Your task to perform on an android device: see creations saved in the google photos Image 0: 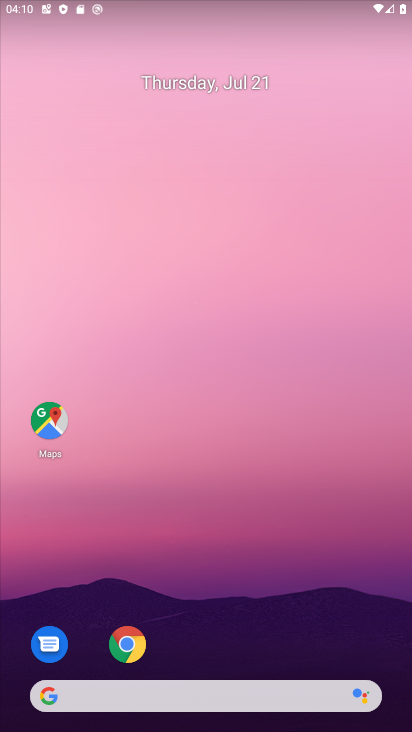
Step 0: drag from (308, 661) to (304, 38)
Your task to perform on an android device: see creations saved in the google photos Image 1: 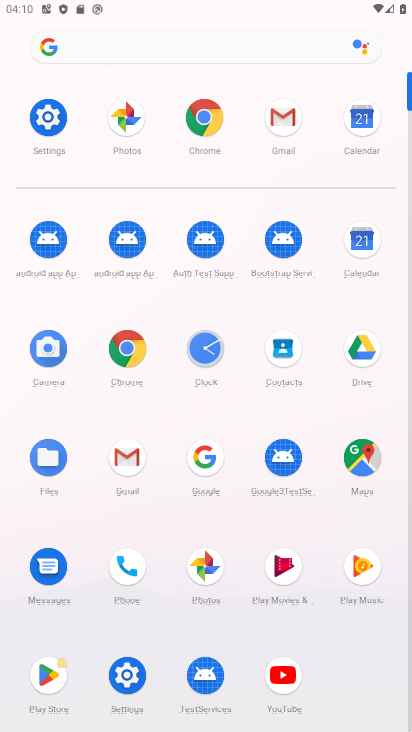
Step 1: click (198, 568)
Your task to perform on an android device: see creations saved in the google photos Image 2: 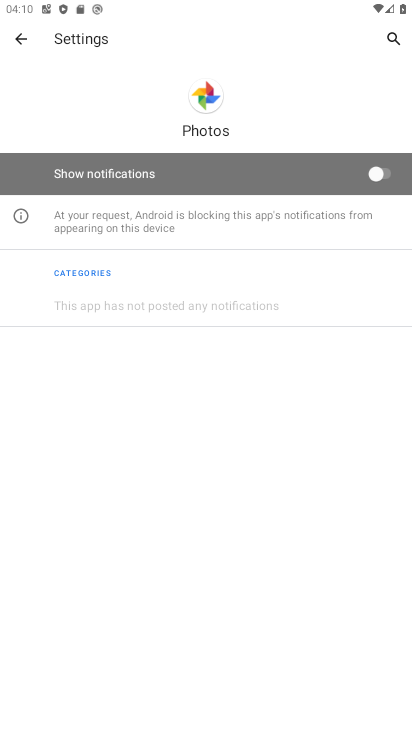
Step 2: click (19, 44)
Your task to perform on an android device: see creations saved in the google photos Image 3: 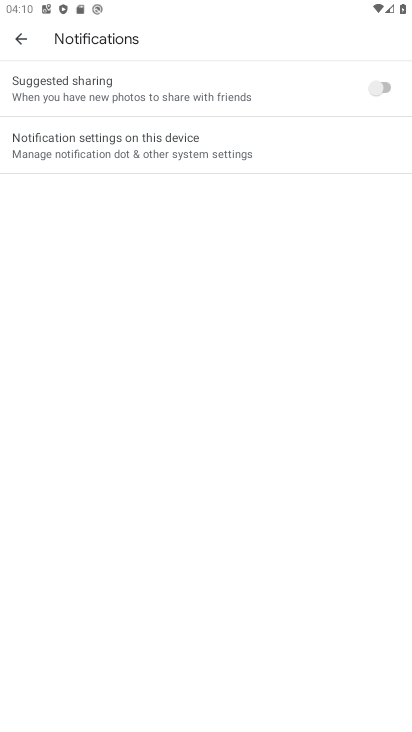
Step 3: click (19, 44)
Your task to perform on an android device: see creations saved in the google photos Image 4: 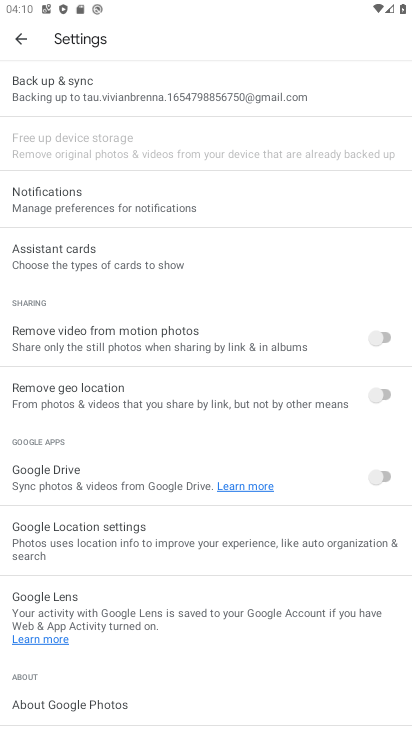
Step 4: click (19, 44)
Your task to perform on an android device: see creations saved in the google photos Image 5: 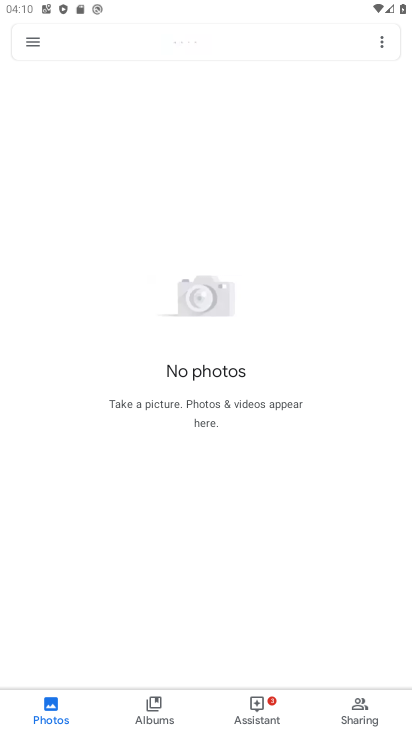
Step 5: click (112, 45)
Your task to perform on an android device: see creations saved in the google photos Image 6: 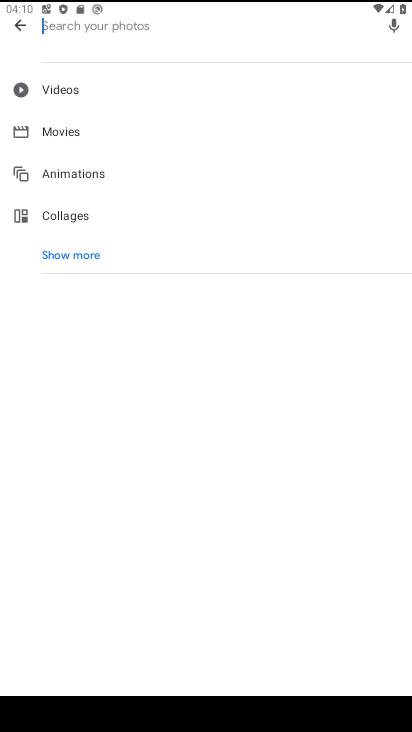
Step 6: click (72, 258)
Your task to perform on an android device: see creations saved in the google photos Image 7: 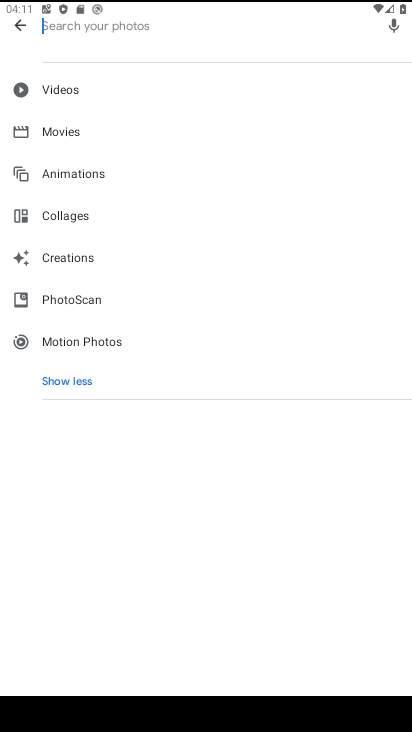
Step 7: click (71, 264)
Your task to perform on an android device: see creations saved in the google photos Image 8: 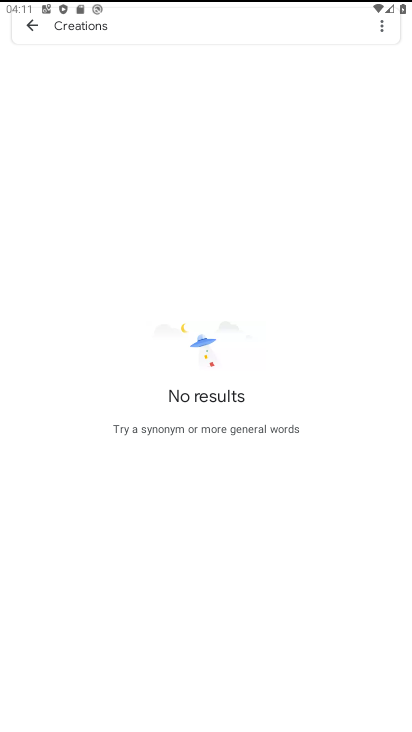
Step 8: task complete